Your task to perform on an android device: set the timer Image 0: 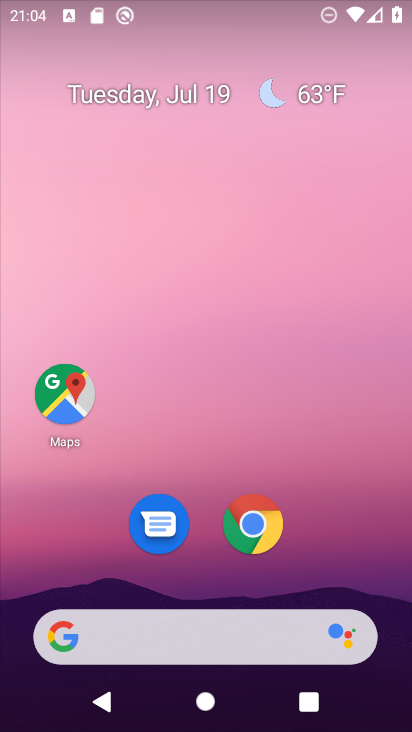
Step 0: drag from (325, 520) to (320, 38)
Your task to perform on an android device: set the timer Image 1: 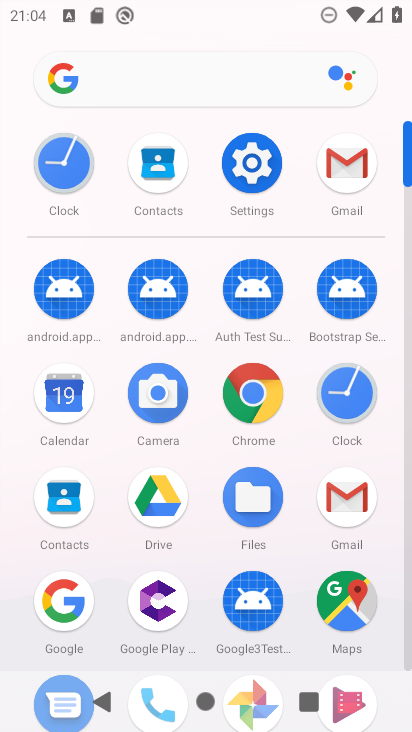
Step 1: click (69, 148)
Your task to perform on an android device: set the timer Image 2: 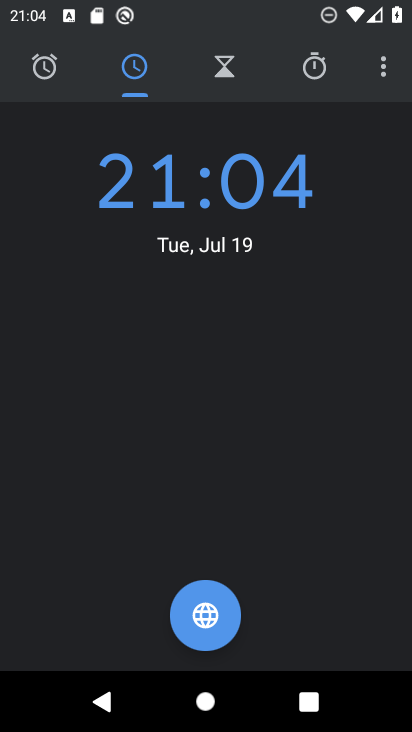
Step 2: click (230, 62)
Your task to perform on an android device: set the timer Image 3: 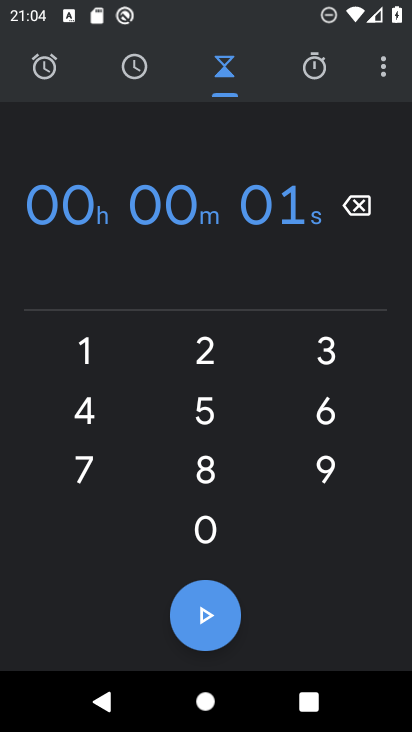
Step 3: click (85, 353)
Your task to perform on an android device: set the timer Image 4: 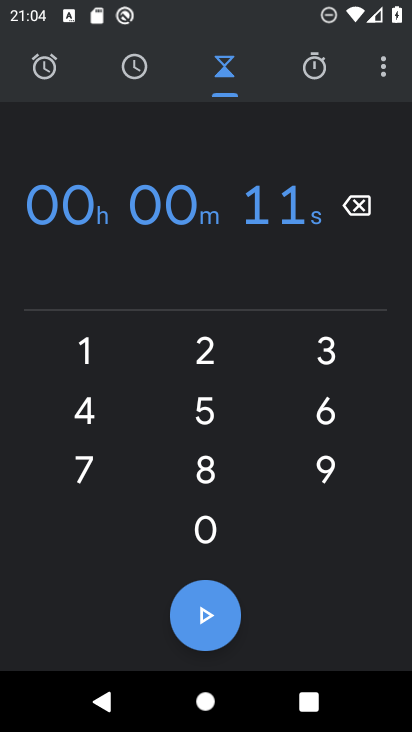
Step 4: task complete